Your task to perform on an android device: check android version Image 0: 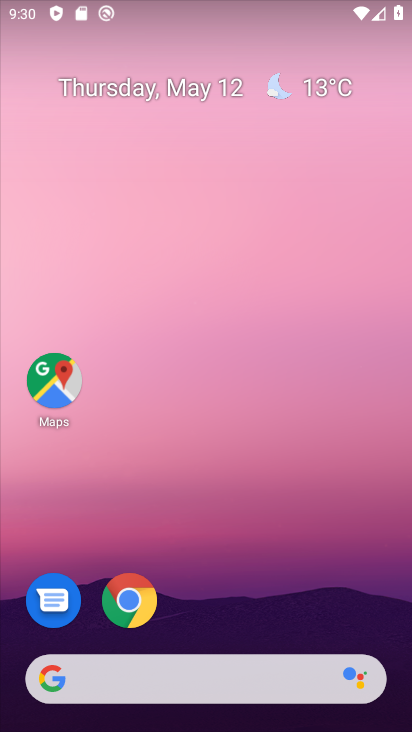
Step 0: drag from (206, 608) to (306, 43)
Your task to perform on an android device: check android version Image 1: 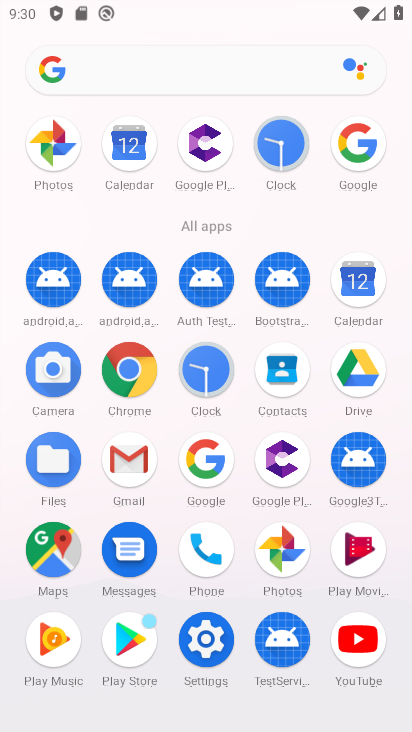
Step 1: click (198, 646)
Your task to perform on an android device: check android version Image 2: 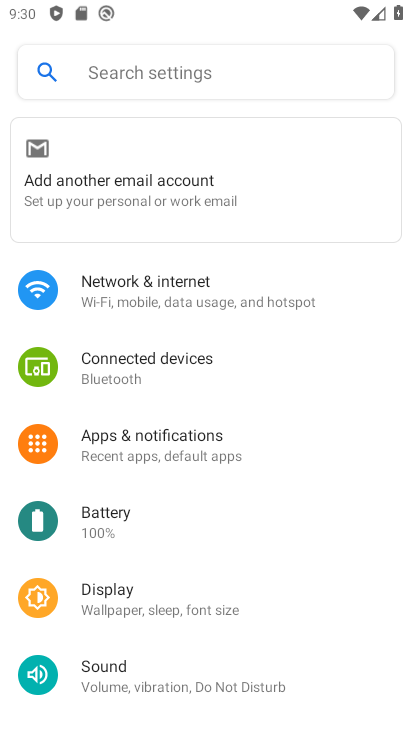
Step 2: drag from (160, 633) to (310, 92)
Your task to perform on an android device: check android version Image 3: 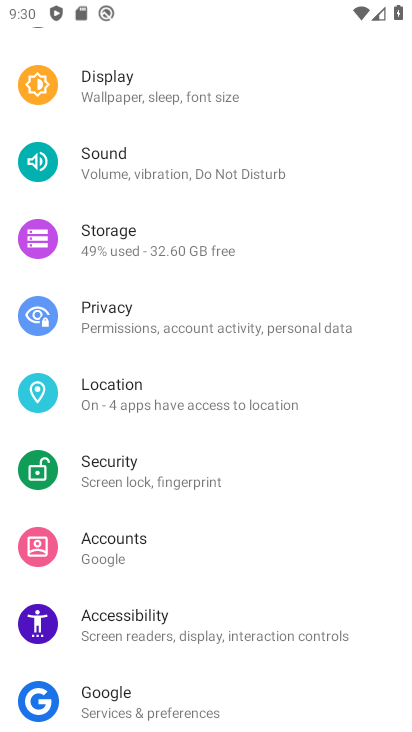
Step 3: drag from (194, 653) to (302, 46)
Your task to perform on an android device: check android version Image 4: 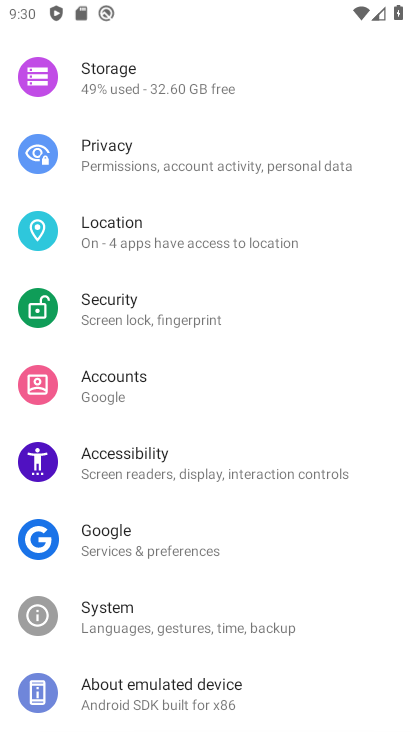
Step 4: drag from (173, 630) to (260, 31)
Your task to perform on an android device: check android version Image 5: 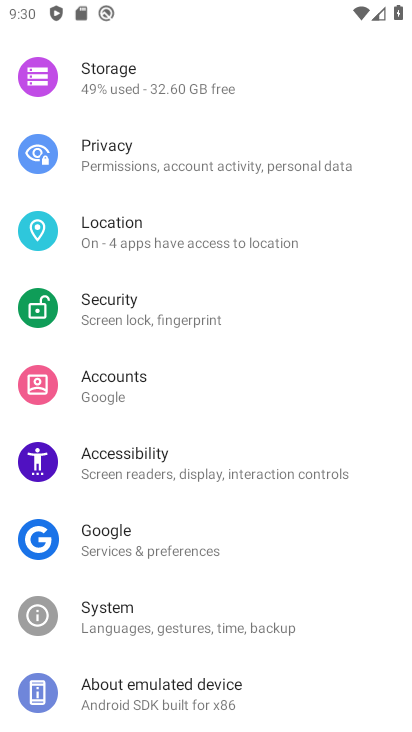
Step 5: click (194, 700)
Your task to perform on an android device: check android version Image 6: 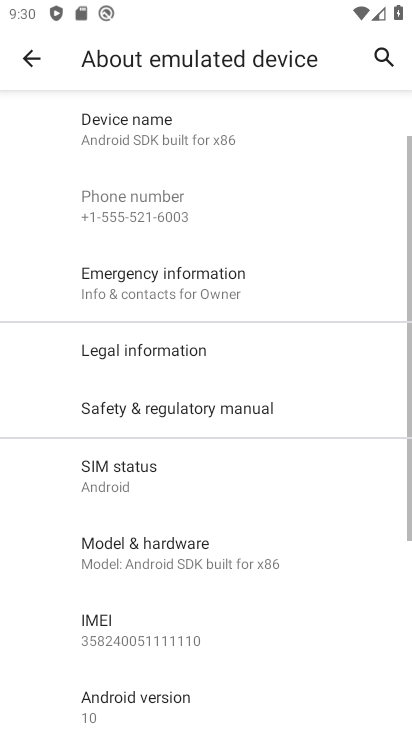
Step 6: click (114, 717)
Your task to perform on an android device: check android version Image 7: 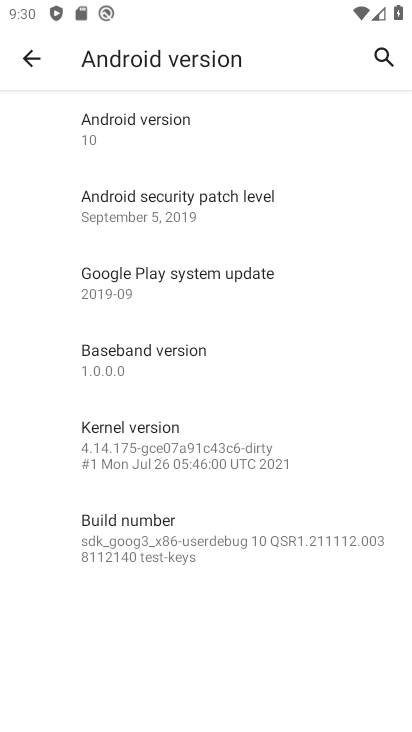
Step 7: click (143, 123)
Your task to perform on an android device: check android version Image 8: 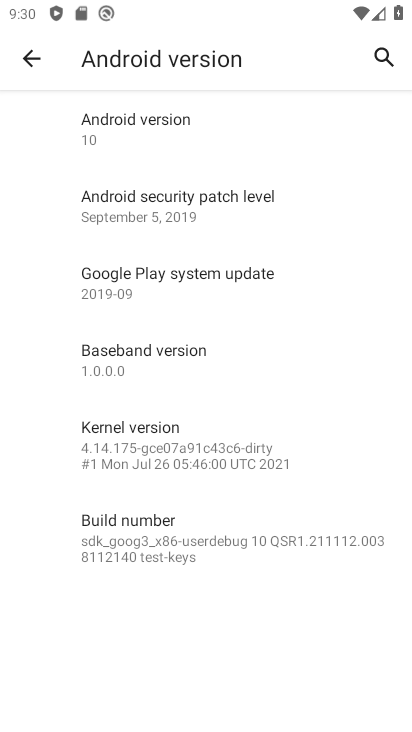
Step 8: task complete